Your task to perform on an android device: Do I have any events today? Image 0: 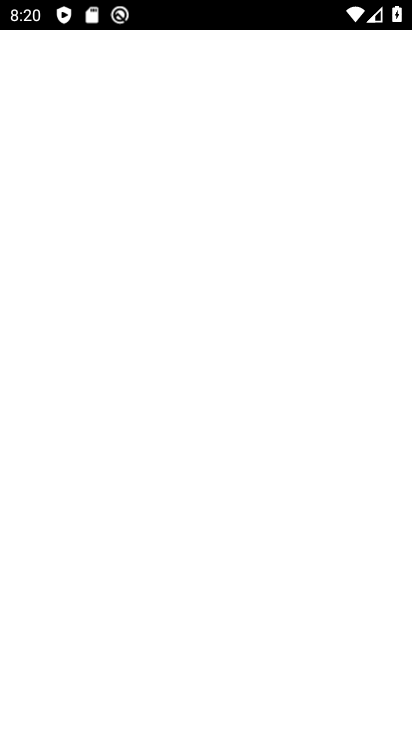
Step 0: drag from (198, 675) to (182, 76)
Your task to perform on an android device: Do I have any events today? Image 1: 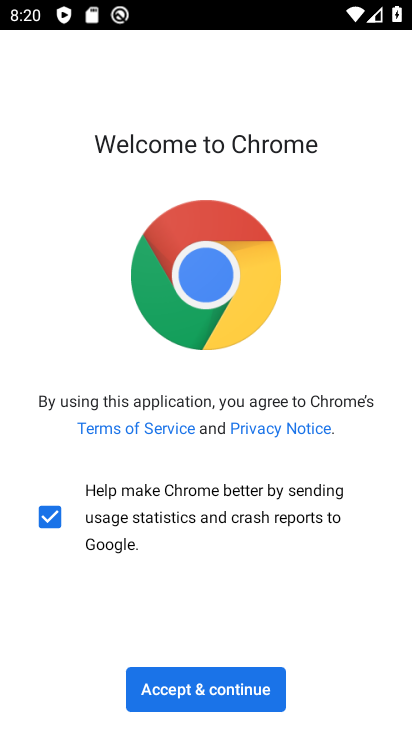
Step 1: press home button
Your task to perform on an android device: Do I have any events today? Image 2: 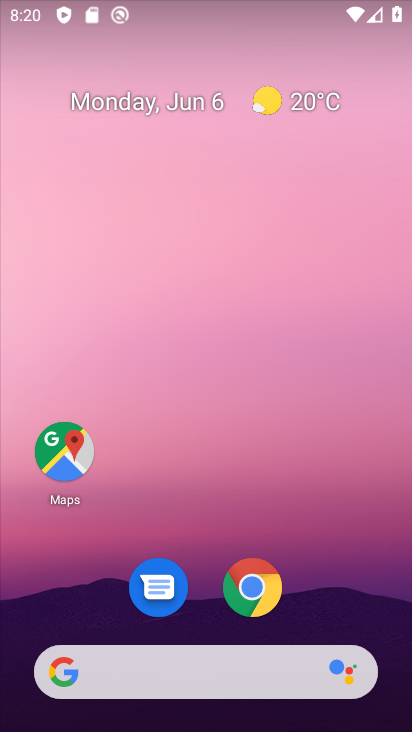
Step 2: drag from (231, 685) to (222, 240)
Your task to perform on an android device: Do I have any events today? Image 3: 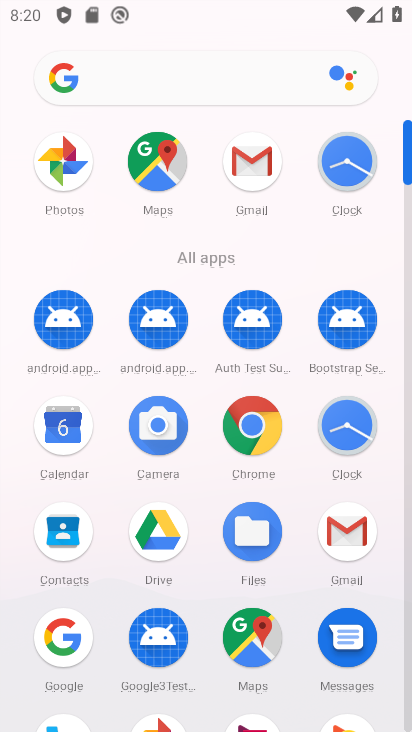
Step 3: click (70, 425)
Your task to perform on an android device: Do I have any events today? Image 4: 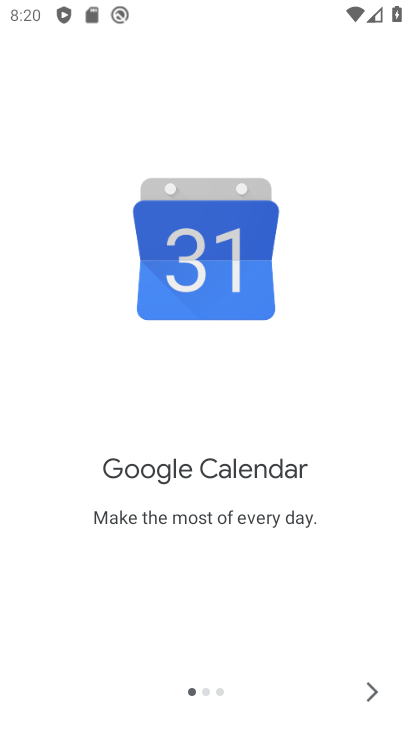
Step 4: click (357, 695)
Your task to perform on an android device: Do I have any events today? Image 5: 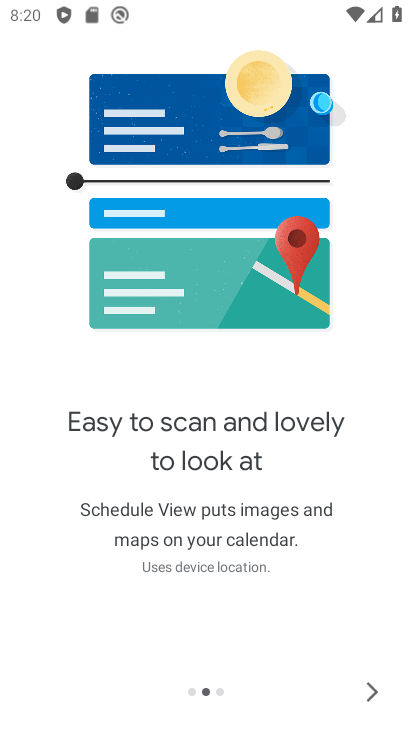
Step 5: click (359, 695)
Your task to perform on an android device: Do I have any events today? Image 6: 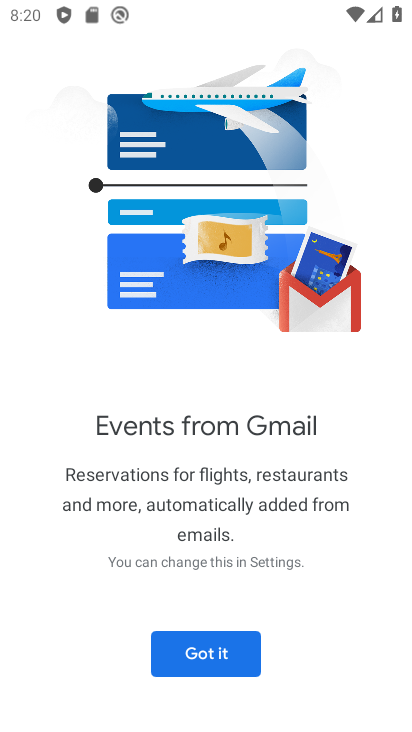
Step 6: click (359, 695)
Your task to perform on an android device: Do I have any events today? Image 7: 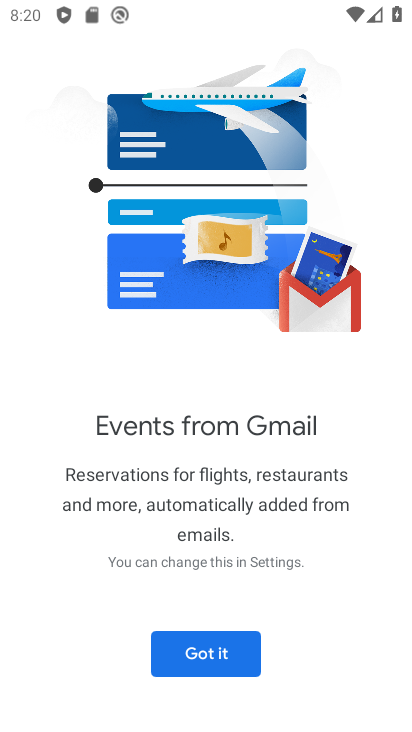
Step 7: click (204, 649)
Your task to perform on an android device: Do I have any events today? Image 8: 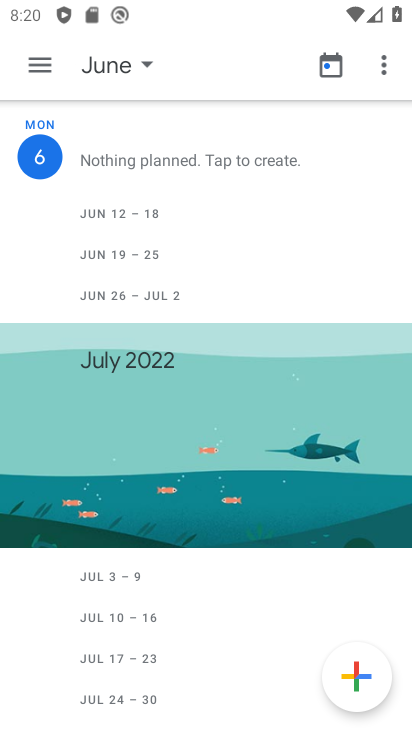
Step 8: click (37, 70)
Your task to perform on an android device: Do I have any events today? Image 9: 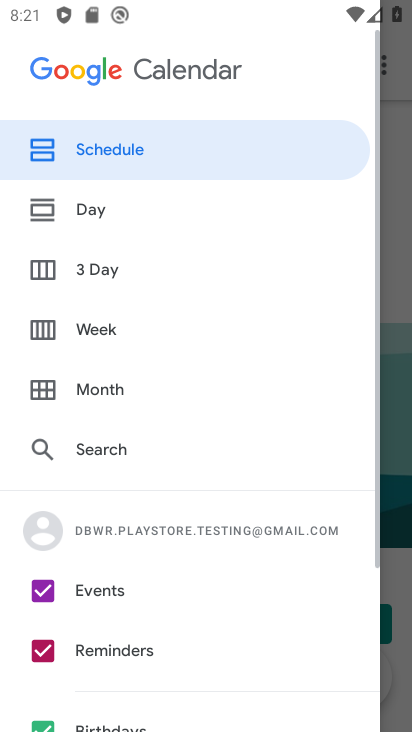
Step 9: click (81, 159)
Your task to perform on an android device: Do I have any events today? Image 10: 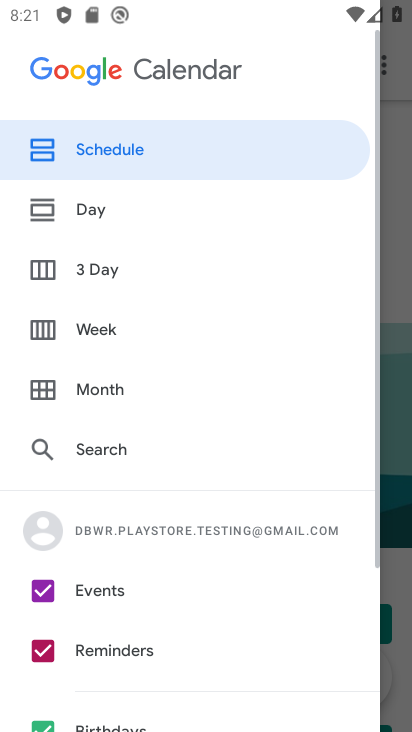
Step 10: click (130, 154)
Your task to perform on an android device: Do I have any events today? Image 11: 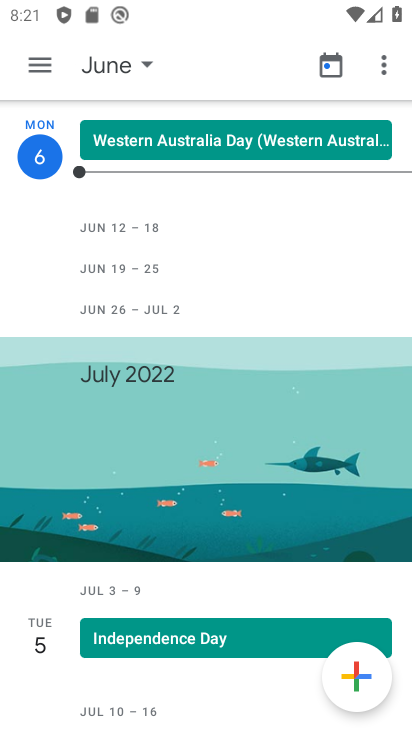
Step 11: task complete